Your task to perform on an android device: Search for a new mascara on Sephora Image 0: 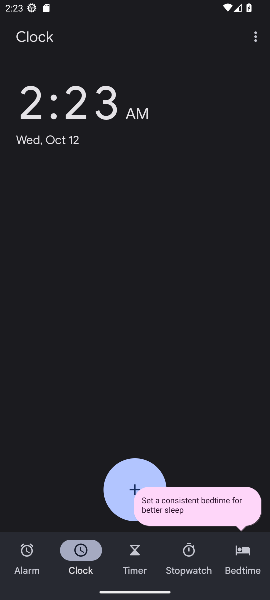
Step 0: press home button
Your task to perform on an android device: Search for a new mascara on Sephora Image 1: 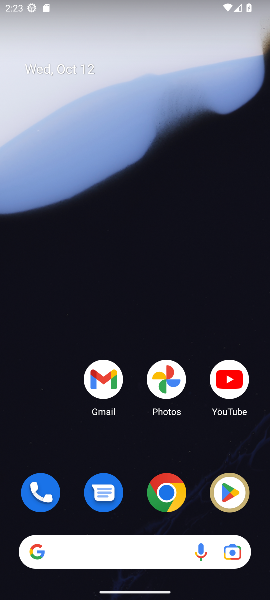
Step 1: click (179, 486)
Your task to perform on an android device: Search for a new mascara on Sephora Image 2: 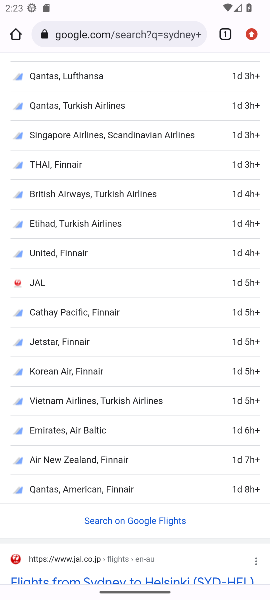
Step 2: click (114, 34)
Your task to perform on an android device: Search for a new mascara on Sephora Image 3: 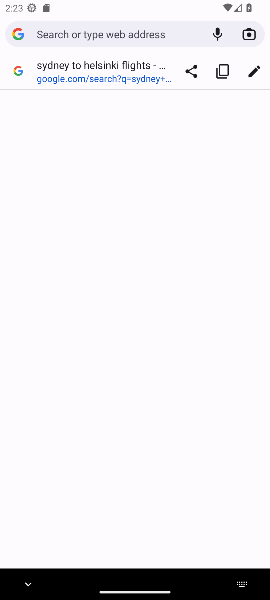
Step 3: type " new mascara on Sephora"
Your task to perform on an android device: Search for a new mascara on Sephora Image 4: 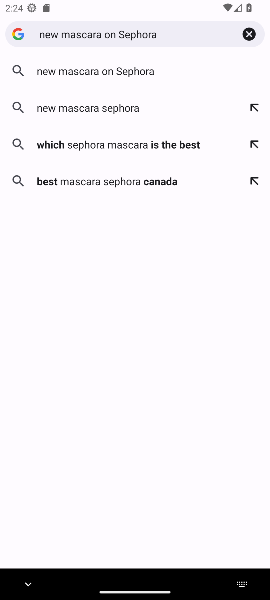
Step 4: click (60, 79)
Your task to perform on an android device: Search for a new mascara on Sephora Image 5: 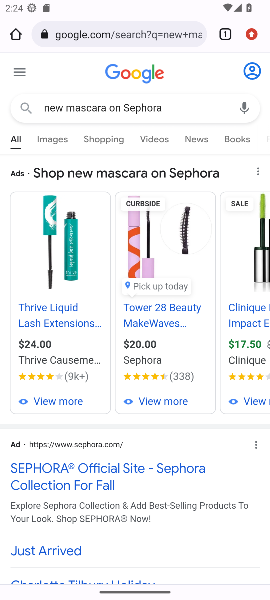
Step 5: click (41, 463)
Your task to perform on an android device: Search for a new mascara on Sephora Image 6: 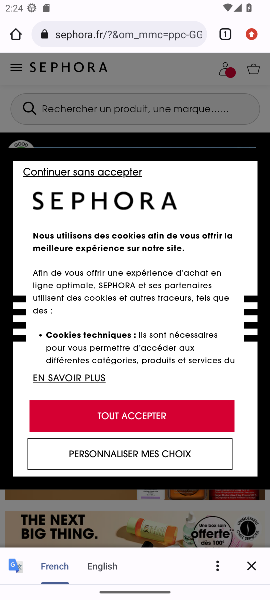
Step 6: click (89, 417)
Your task to perform on an android device: Search for a new mascara on Sephora Image 7: 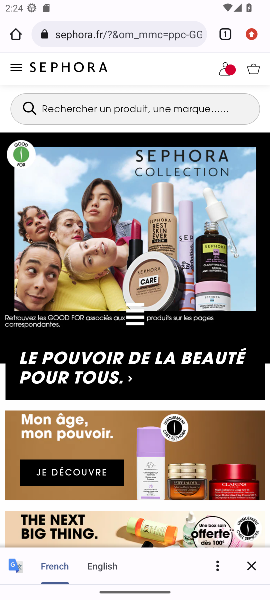
Step 7: click (107, 110)
Your task to perform on an android device: Search for a new mascara on Sephora Image 8: 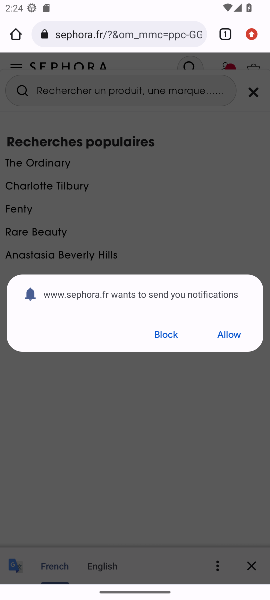
Step 8: click (158, 333)
Your task to perform on an android device: Search for a new mascara on Sephora Image 9: 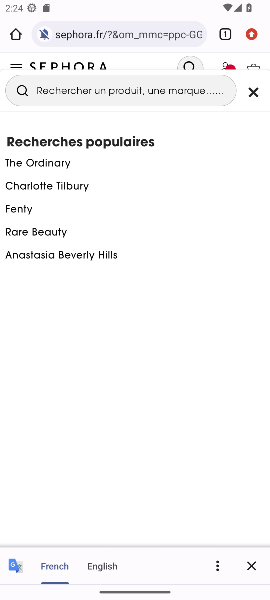
Step 9: click (92, 96)
Your task to perform on an android device: Search for a new mascara on Sephora Image 10: 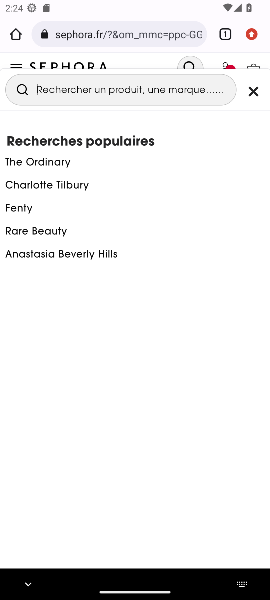
Step 10: type "new mascara"
Your task to perform on an android device: Search for a new mascara on Sephora Image 11: 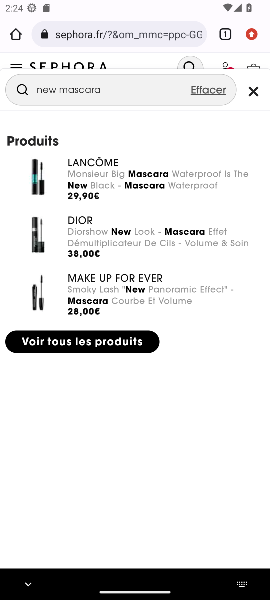
Step 11: task complete